Your task to perform on an android device: check android version Image 0: 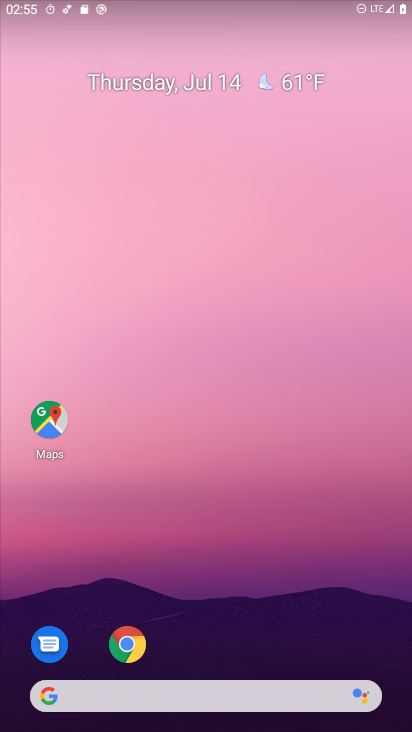
Step 0: drag from (344, 605) to (323, 1)
Your task to perform on an android device: check android version Image 1: 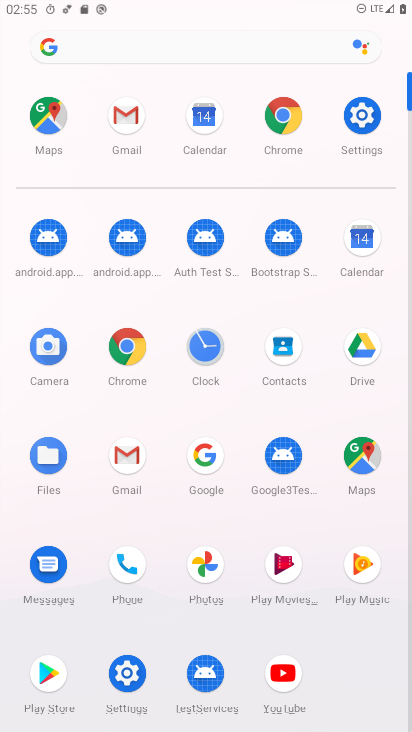
Step 1: click (370, 113)
Your task to perform on an android device: check android version Image 2: 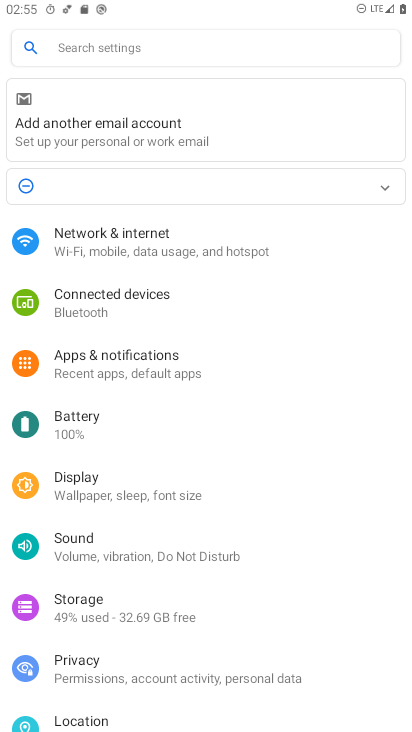
Step 2: drag from (167, 571) to (239, 0)
Your task to perform on an android device: check android version Image 3: 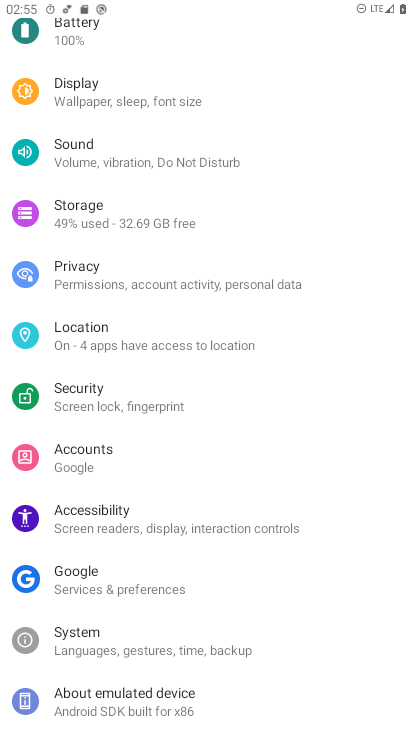
Step 3: drag from (221, 603) to (300, 128)
Your task to perform on an android device: check android version Image 4: 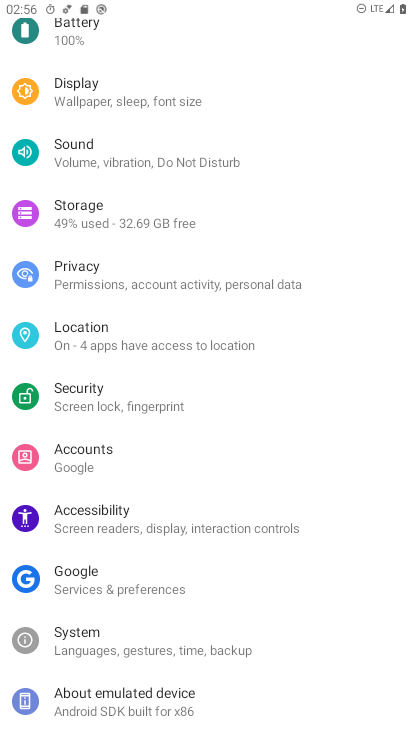
Step 4: click (143, 693)
Your task to perform on an android device: check android version Image 5: 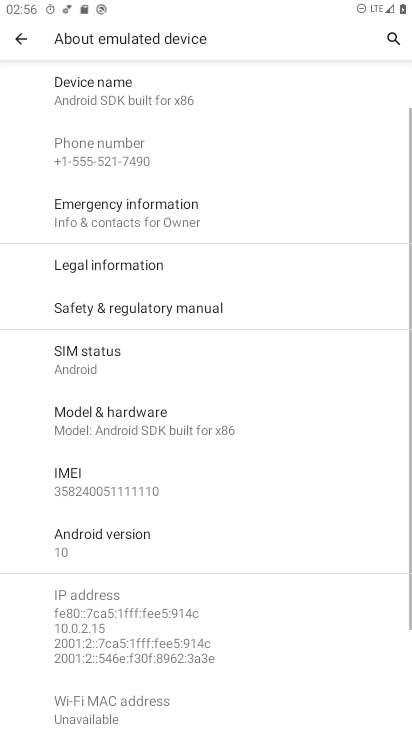
Step 5: drag from (179, 356) to (205, 702)
Your task to perform on an android device: check android version Image 6: 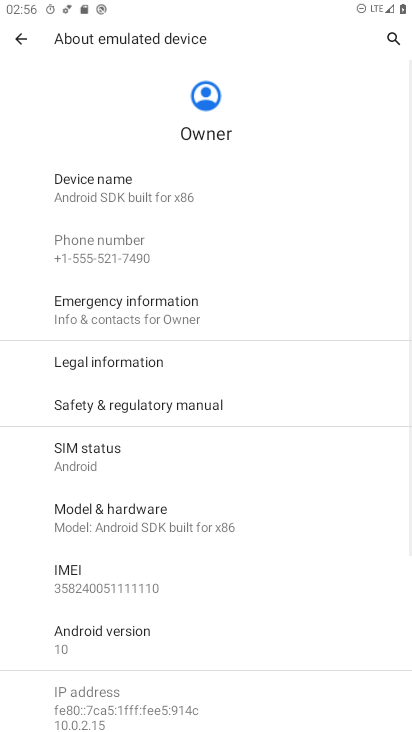
Step 6: drag from (248, 564) to (289, 3)
Your task to perform on an android device: check android version Image 7: 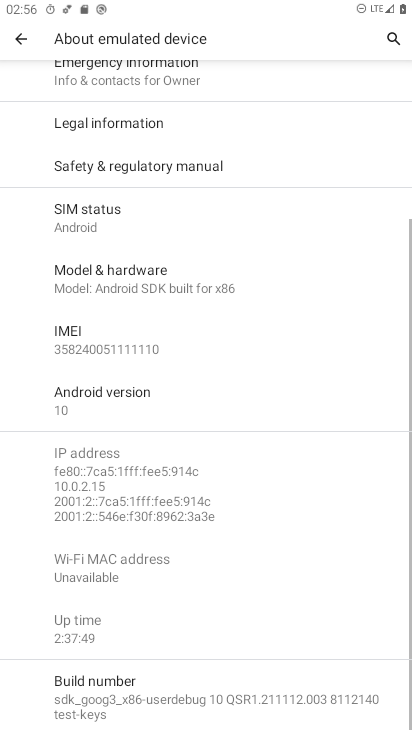
Step 7: click (97, 401)
Your task to perform on an android device: check android version Image 8: 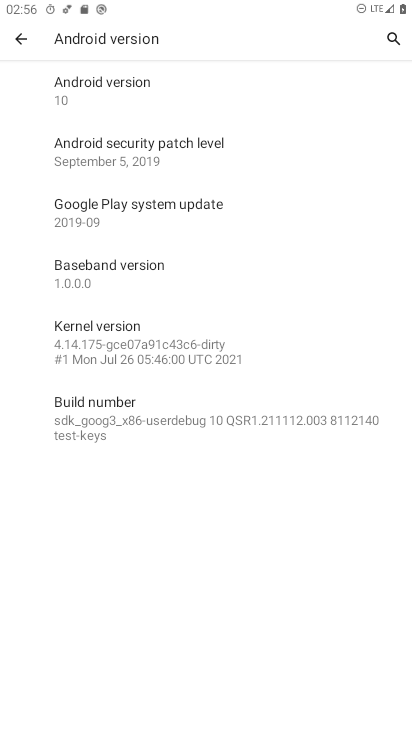
Step 8: task complete